Your task to perform on an android device: refresh tabs in the chrome app Image 0: 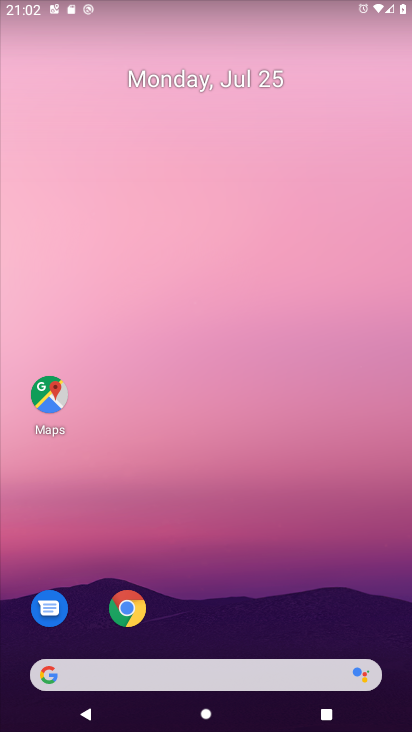
Step 0: click (129, 606)
Your task to perform on an android device: refresh tabs in the chrome app Image 1: 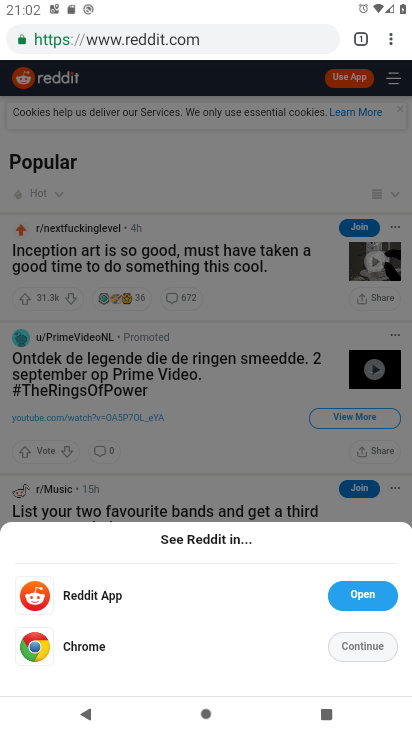
Step 1: click (386, 37)
Your task to perform on an android device: refresh tabs in the chrome app Image 2: 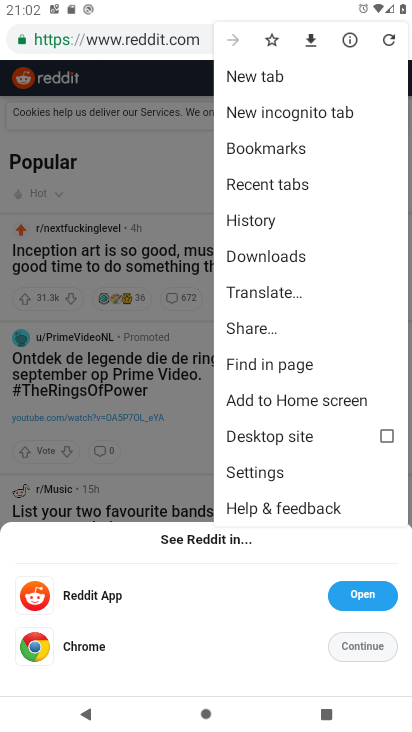
Step 2: click (381, 40)
Your task to perform on an android device: refresh tabs in the chrome app Image 3: 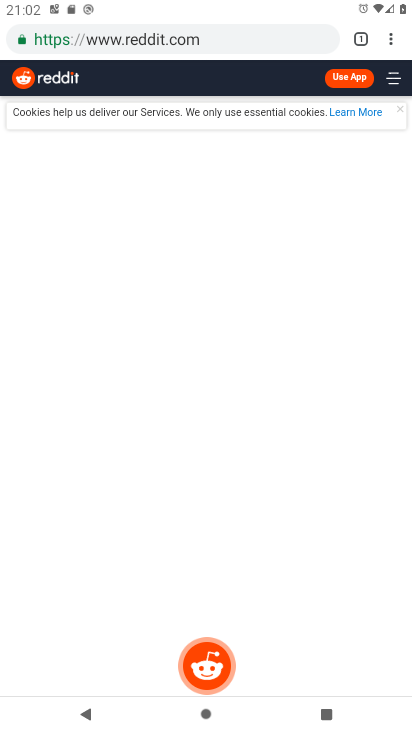
Step 3: task complete